Your task to perform on an android device: turn on the 12-hour format for clock Image 0: 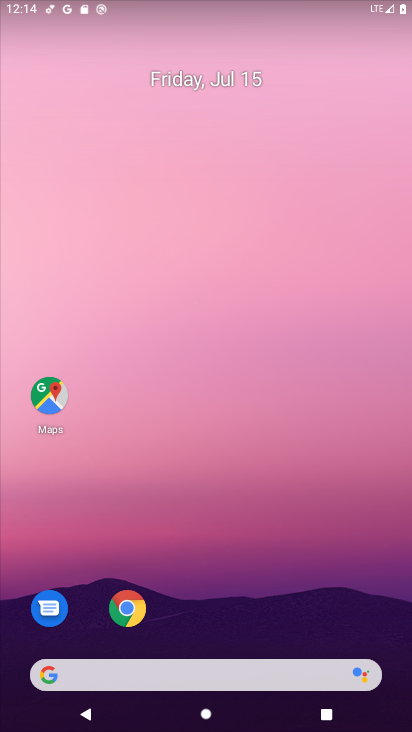
Step 0: drag from (232, 577) to (129, 43)
Your task to perform on an android device: turn on the 12-hour format for clock Image 1: 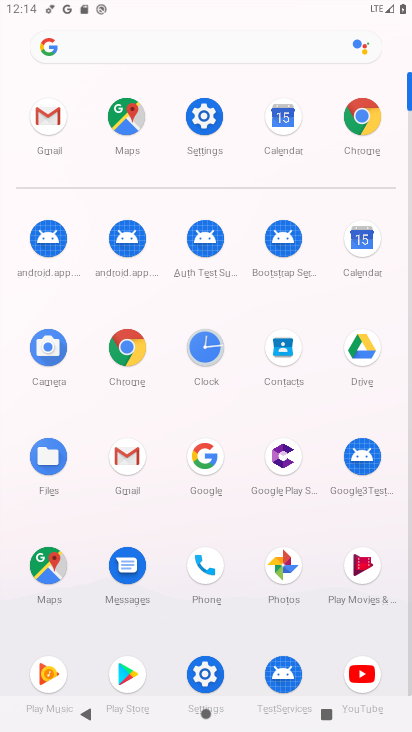
Step 1: click (207, 348)
Your task to perform on an android device: turn on the 12-hour format for clock Image 2: 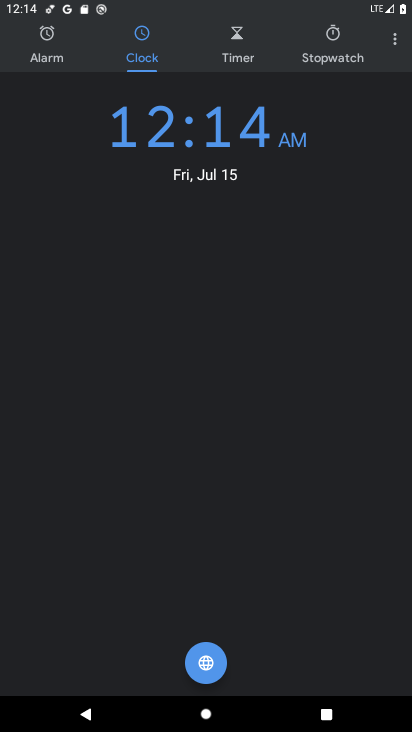
Step 2: click (397, 40)
Your task to perform on an android device: turn on the 12-hour format for clock Image 3: 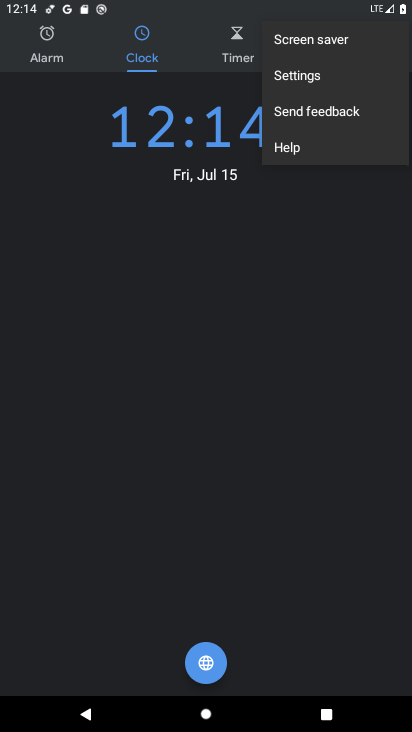
Step 3: click (307, 75)
Your task to perform on an android device: turn on the 12-hour format for clock Image 4: 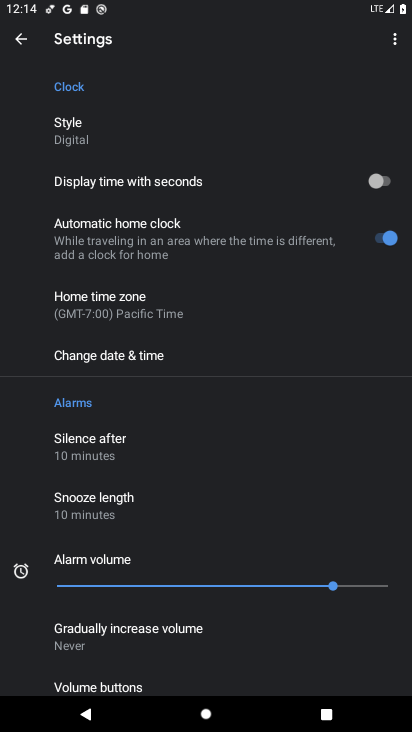
Step 4: click (119, 356)
Your task to perform on an android device: turn on the 12-hour format for clock Image 5: 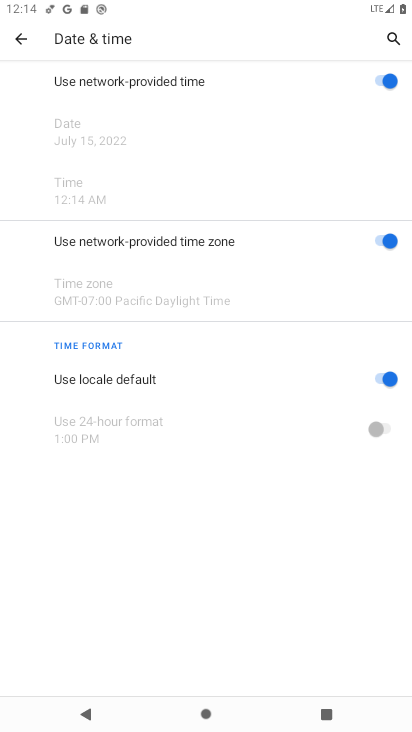
Step 5: task complete